Your task to perform on an android device: set default search engine in the chrome app Image 0: 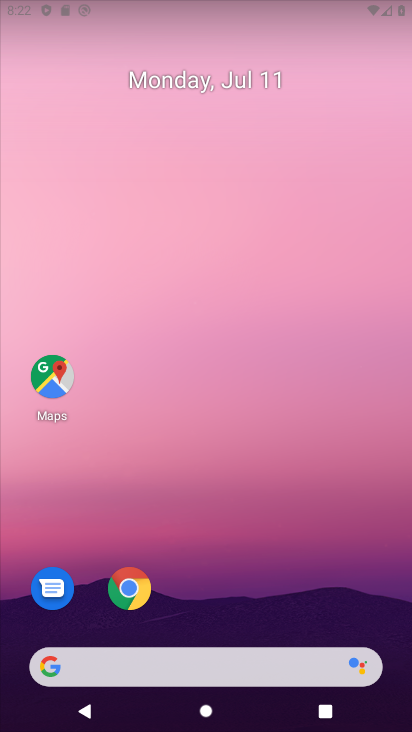
Step 0: click (121, 593)
Your task to perform on an android device: set default search engine in the chrome app Image 1: 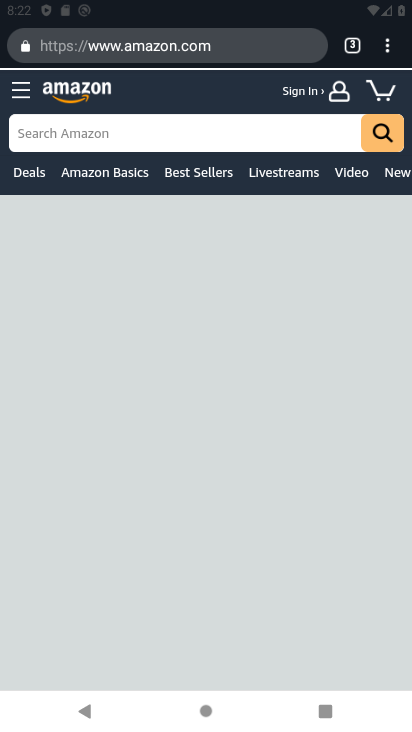
Step 1: click (383, 47)
Your task to perform on an android device: set default search engine in the chrome app Image 2: 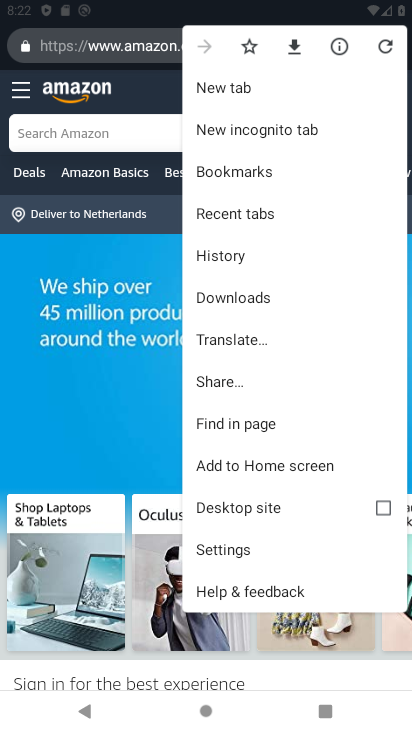
Step 2: click (227, 549)
Your task to perform on an android device: set default search engine in the chrome app Image 3: 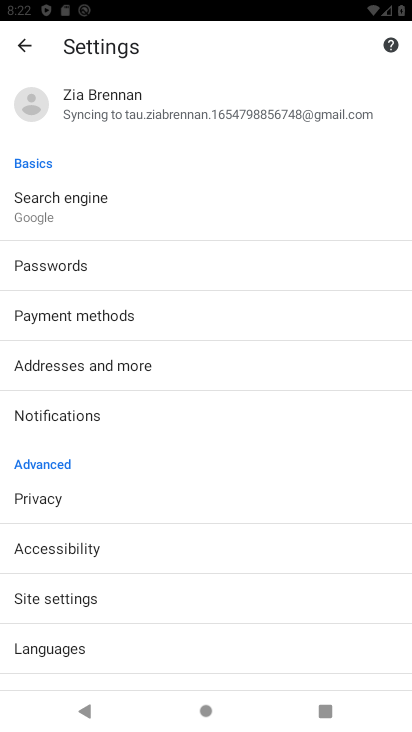
Step 3: click (111, 207)
Your task to perform on an android device: set default search engine in the chrome app Image 4: 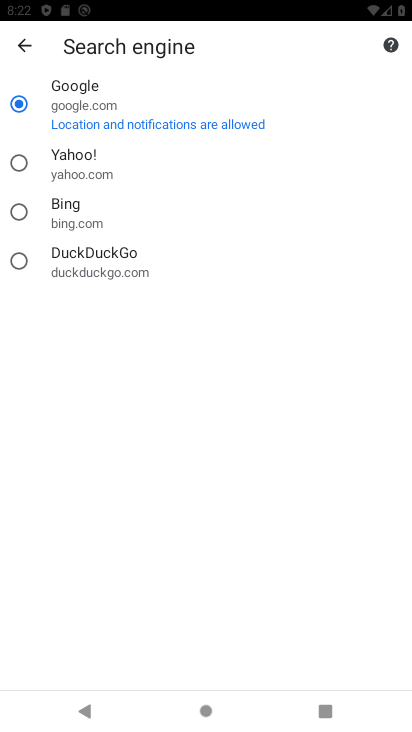
Step 4: task complete